Your task to perform on an android device: See recent photos Image 0: 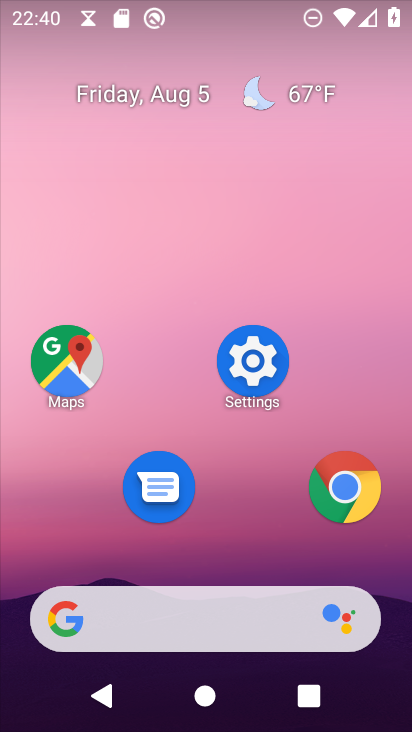
Step 0: press home button
Your task to perform on an android device: See recent photos Image 1: 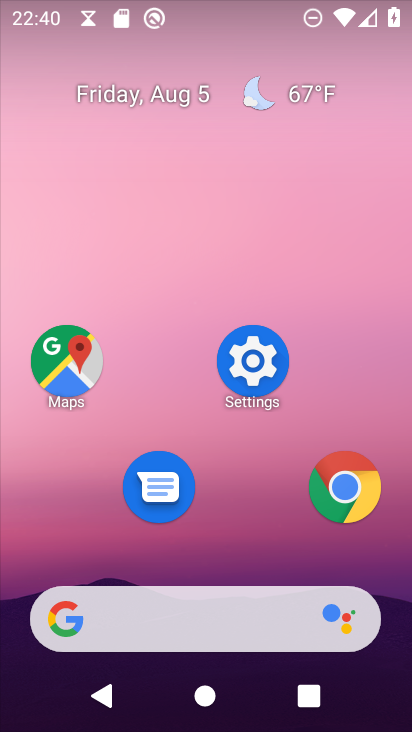
Step 1: drag from (165, 612) to (242, 43)
Your task to perform on an android device: See recent photos Image 2: 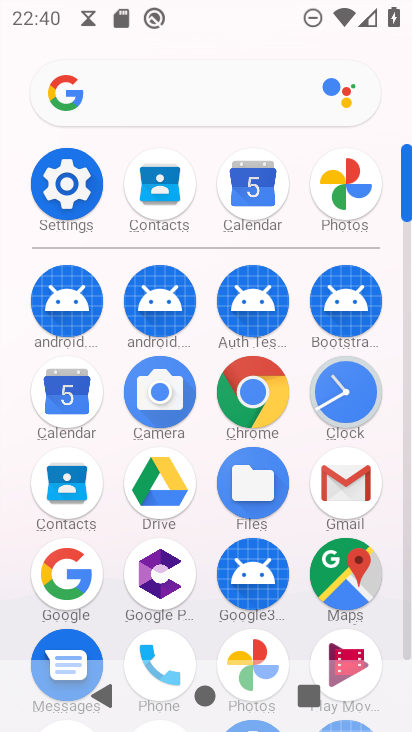
Step 2: click (350, 174)
Your task to perform on an android device: See recent photos Image 3: 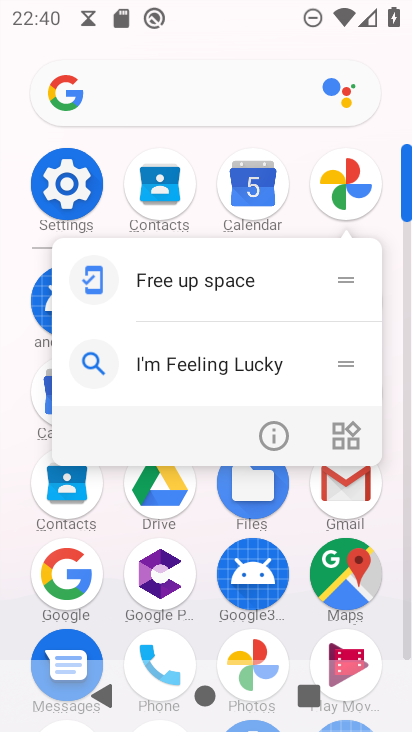
Step 3: click (346, 198)
Your task to perform on an android device: See recent photos Image 4: 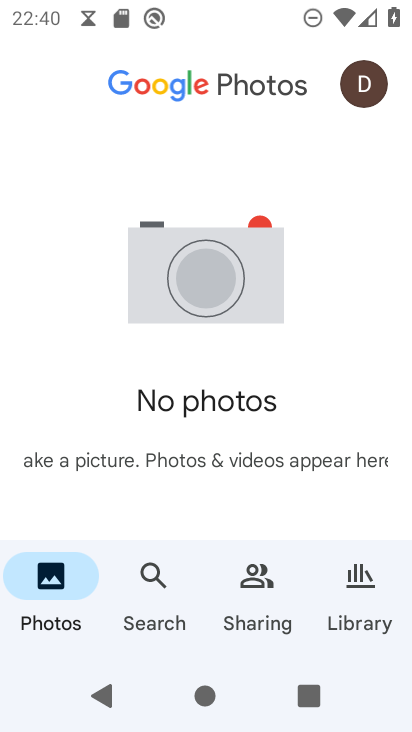
Step 4: click (155, 624)
Your task to perform on an android device: See recent photos Image 5: 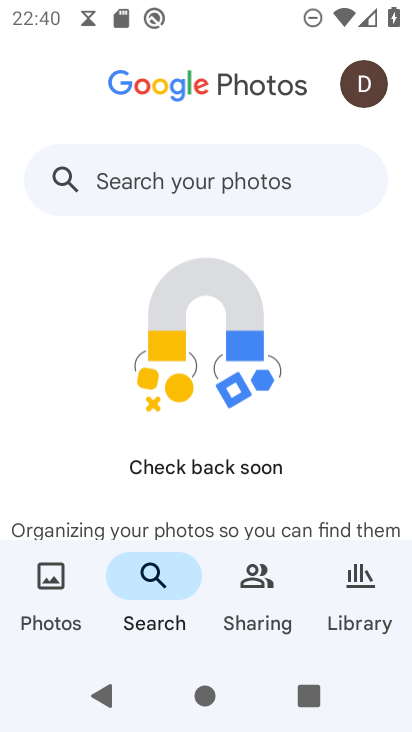
Step 5: click (363, 606)
Your task to perform on an android device: See recent photos Image 6: 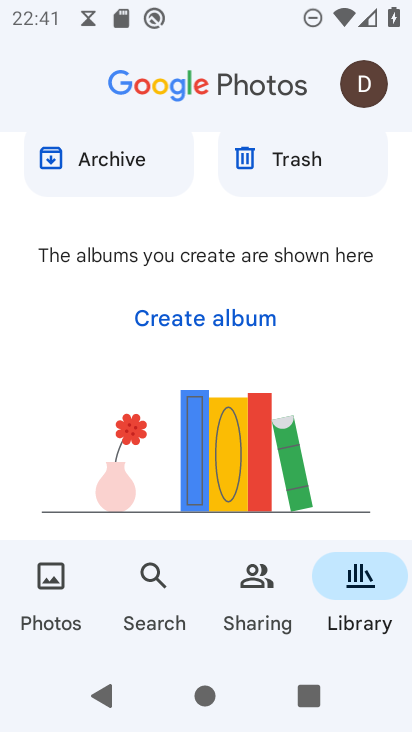
Step 6: task complete